Your task to perform on an android device: find photos in the google photos app Image 0: 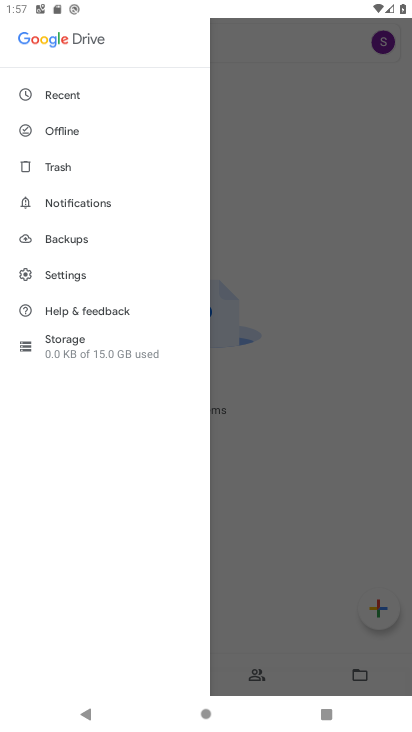
Step 0: press home button
Your task to perform on an android device: find photos in the google photos app Image 1: 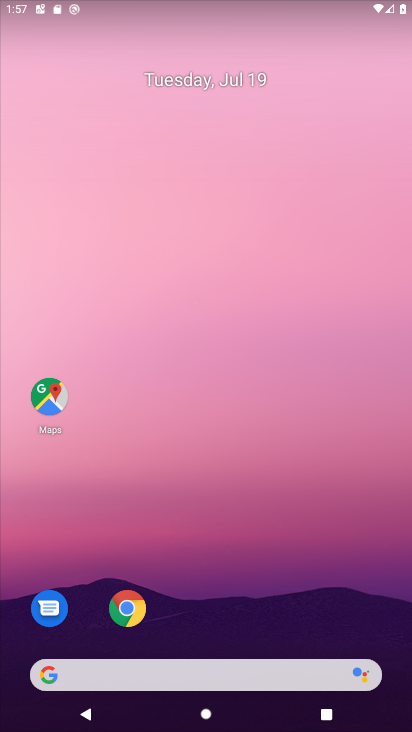
Step 1: drag from (237, 596) to (211, 131)
Your task to perform on an android device: find photos in the google photos app Image 2: 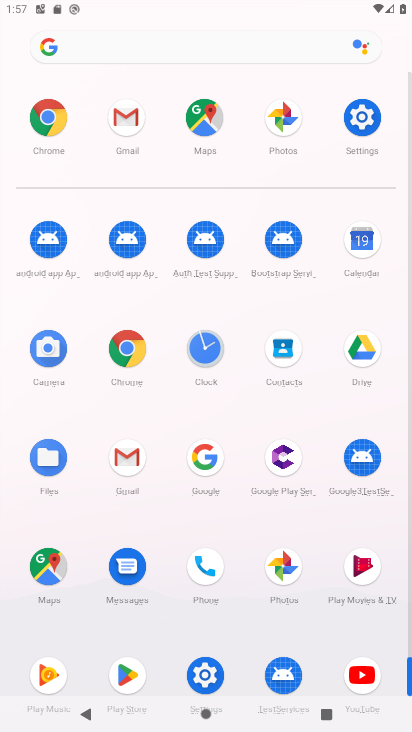
Step 2: click (275, 567)
Your task to perform on an android device: find photos in the google photos app Image 3: 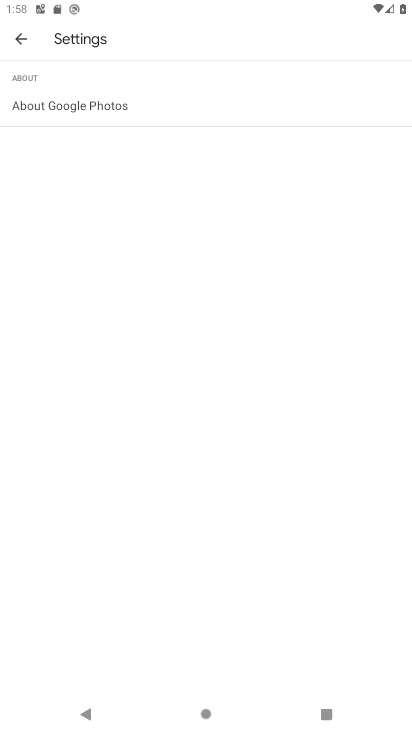
Step 3: press back button
Your task to perform on an android device: find photos in the google photos app Image 4: 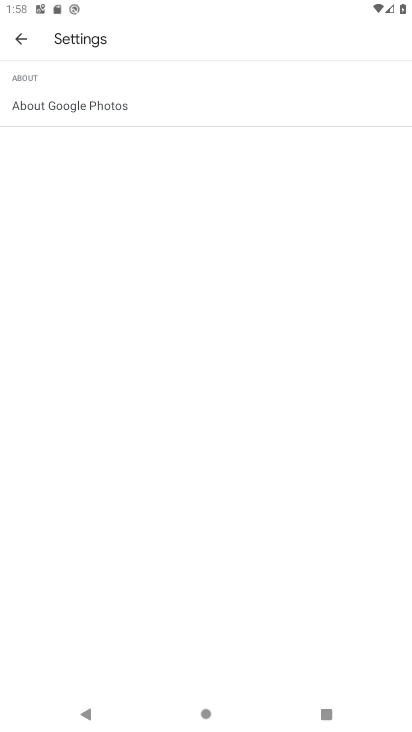
Step 4: press back button
Your task to perform on an android device: find photos in the google photos app Image 5: 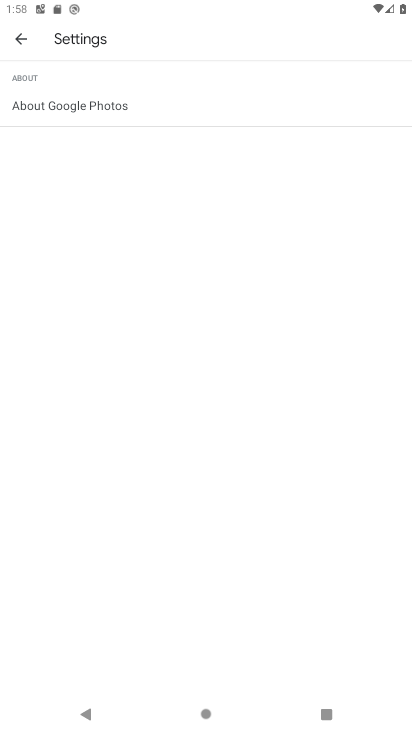
Step 5: click (21, 35)
Your task to perform on an android device: find photos in the google photos app Image 6: 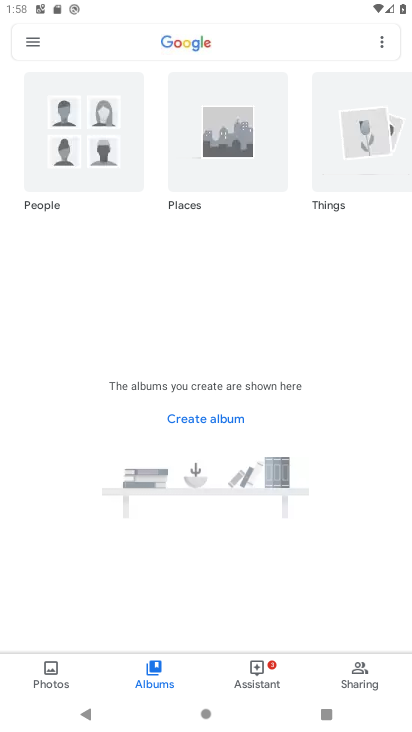
Step 6: click (36, 46)
Your task to perform on an android device: find photos in the google photos app Image 7: 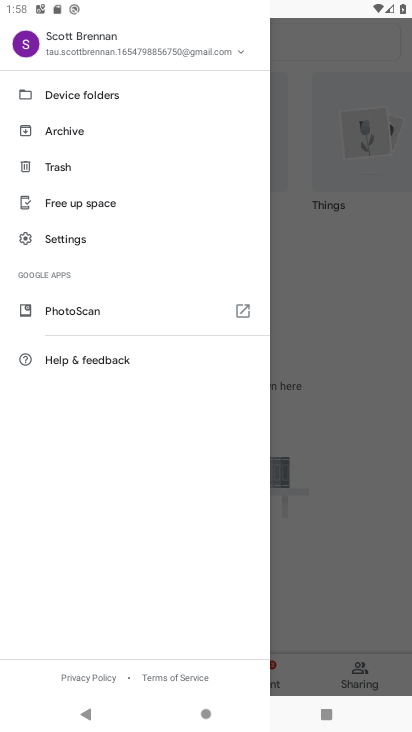
Step 7: click (358, 602)
Your task to perform on an android device: find photos in the google photos app Image 8: 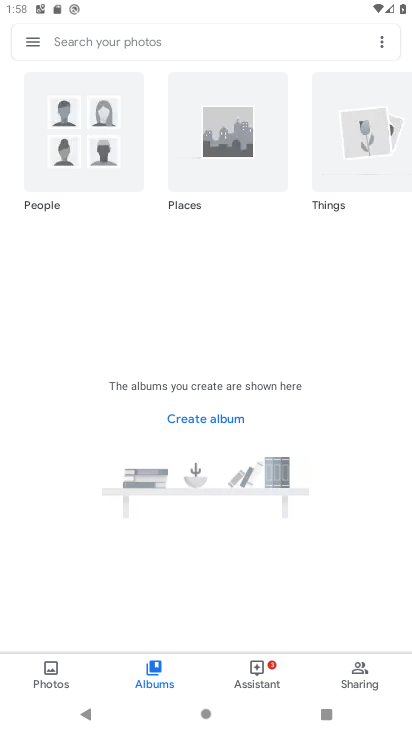
Step 8: click (56, 681)
Your task to perform on an android device: find photos in the google photos app Image 9: 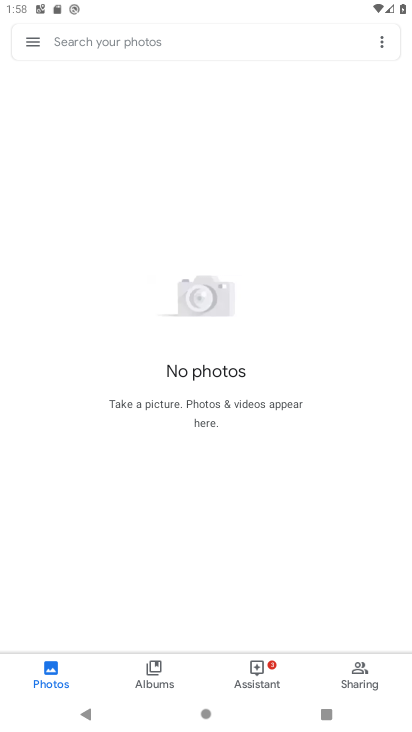
Step 9: task complete